Your task to perform on an android device: turn smart compose on in the gmail app Image 0: 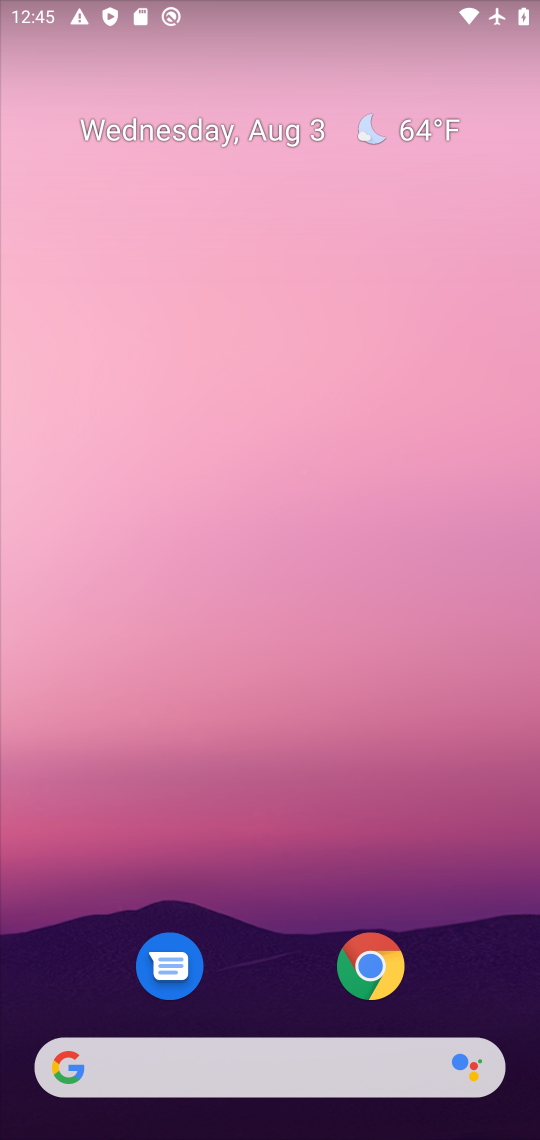
Step 0: drag from (275, 978) to (282, 373)
Your task to perform on an android device: turn smart compose on in the gmail app Image 1: 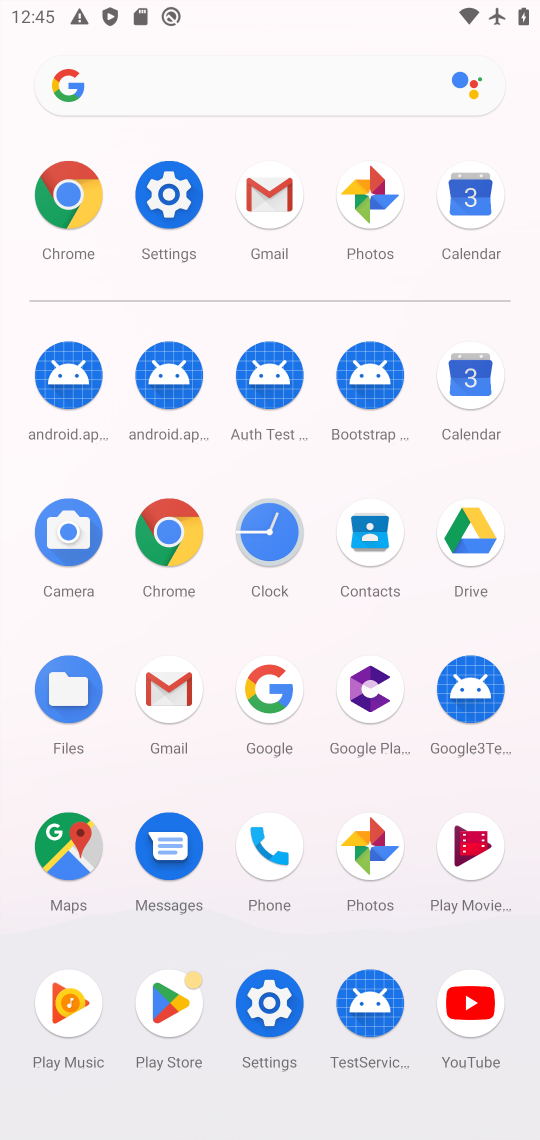
Step 1: click (177, 679)
Your task to perform on an android device: turn smart compose on in the gmail app Image 2: 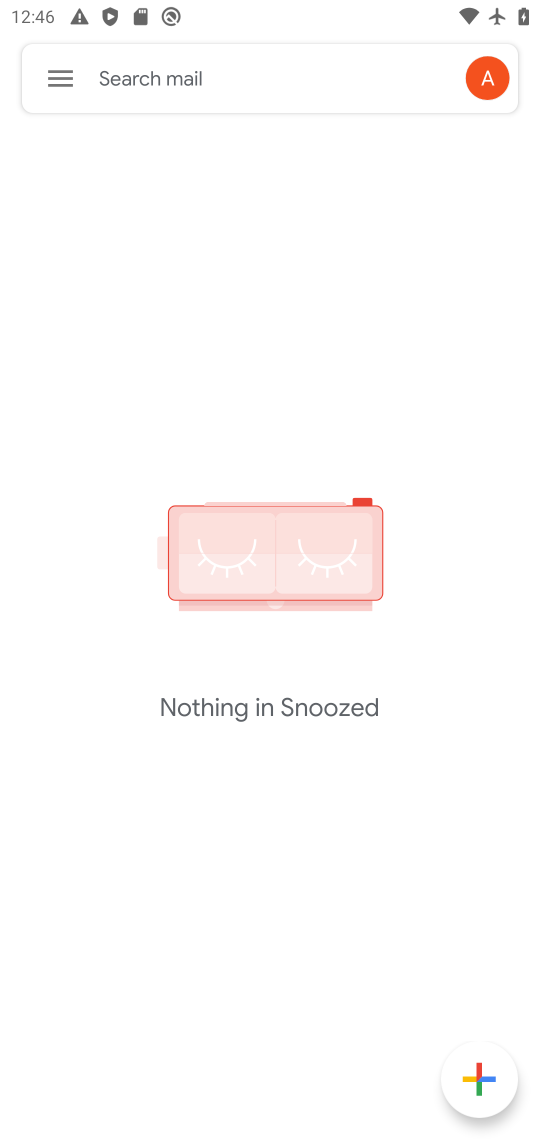
Step 2: click (73, 70)
Your task to perform on an android device: turn smart compose on in the gmail app Image 3: 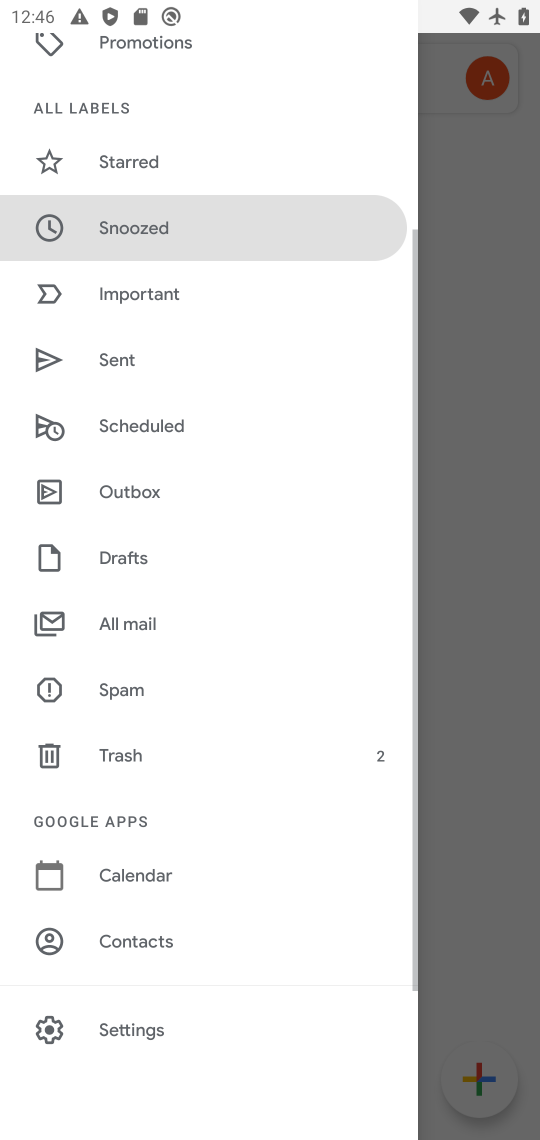
Step 3: click (159, 1038)
Your task to perform on an android device: turn smart compose on in the gmail app Image 4: 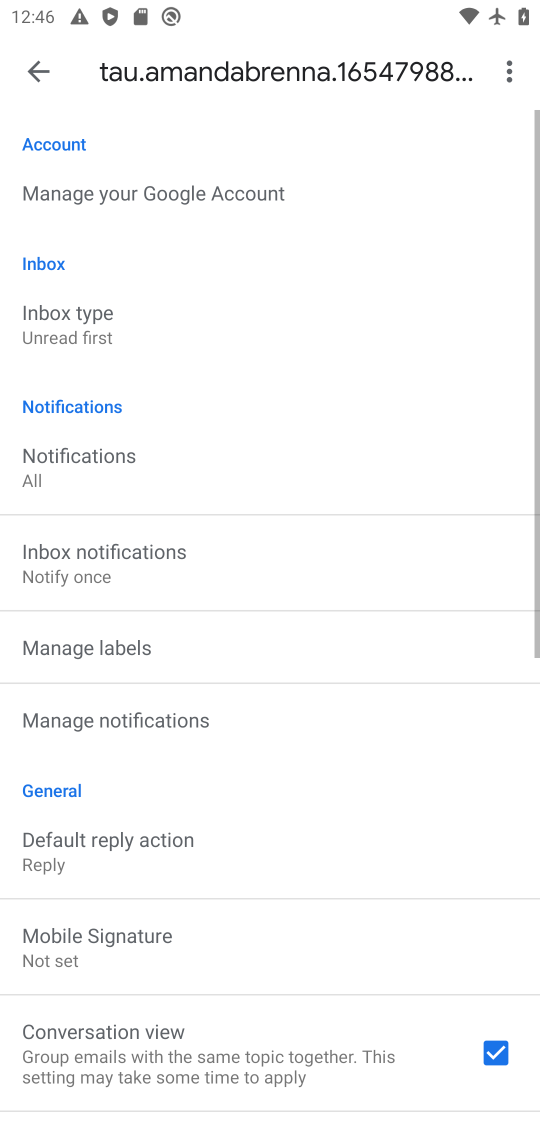
Step 4: task complete